Your task to perform on an android device: Open battery settings Image 0: 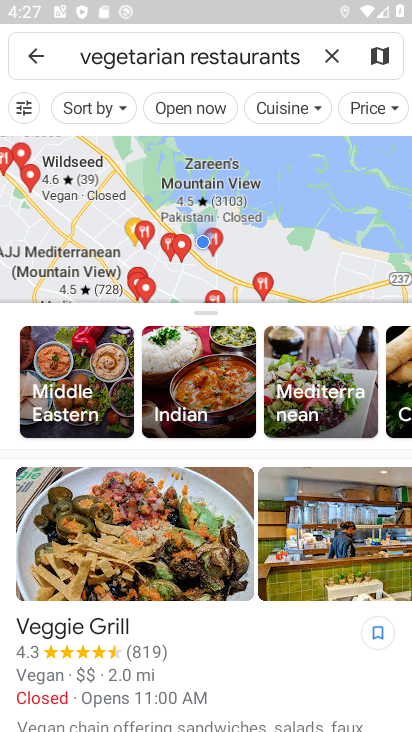
Step 0: press home button
Your task to perform on an android device: Open battery settings Image 1: 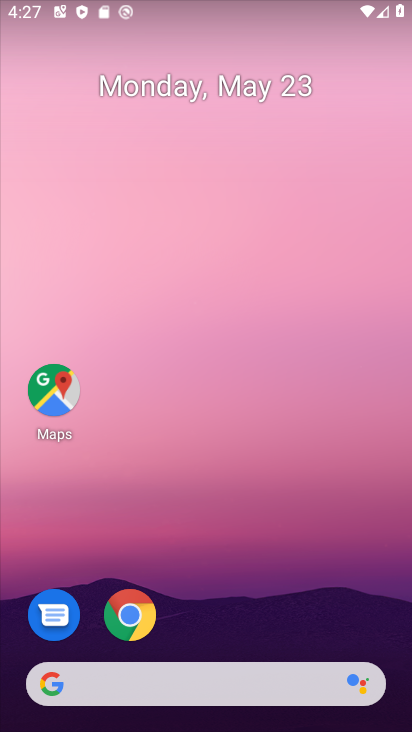
Step 1: drag from (280, 621) to (358, 166)
Your task to perform on an android device: Open battery settings Image 2: 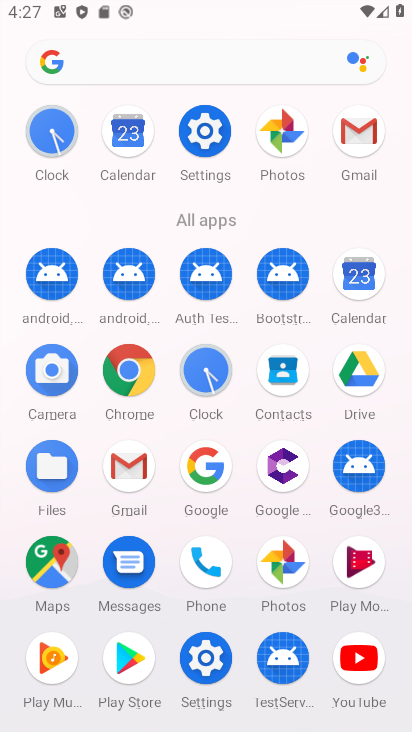
Step 2: click (213, 140)
Your task to perform on an android device: Open battery settings Image 3: 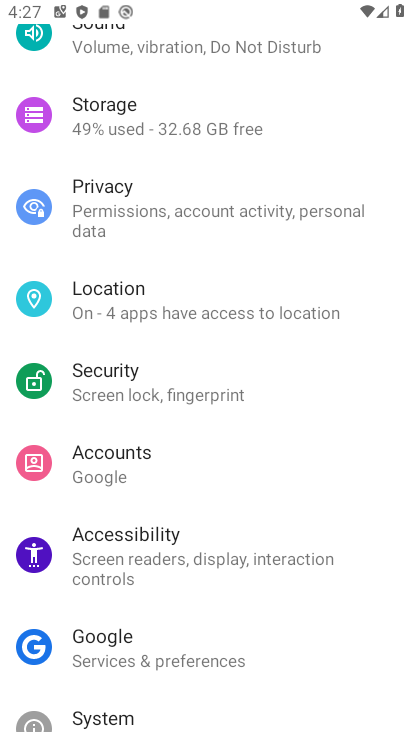
Step 3: drag from (291, 152) to (241, 702)
Your task to perform on an android device: Open battery settings Image 4: 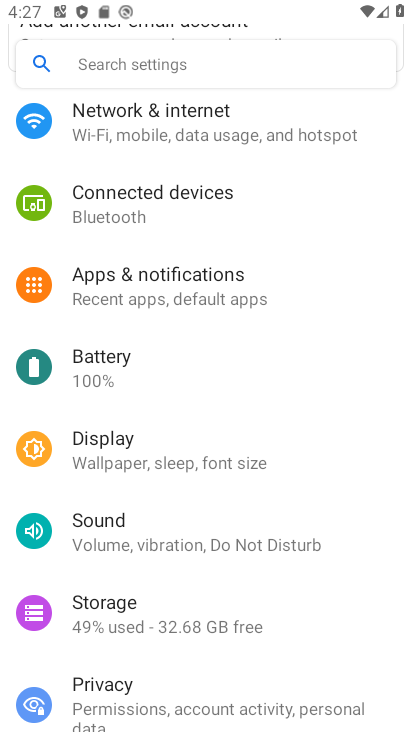
Step 4: click (107, 366)
Your task to perform on an android device: Open battery settings Image 5: 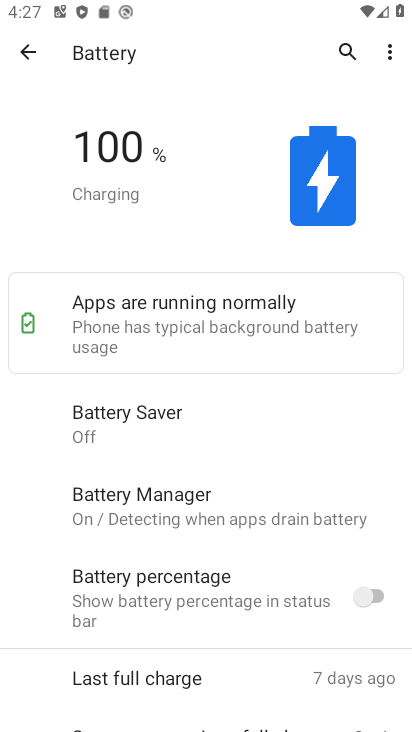
Step 5: task complete